Your task to perform on an android device: change the clock style Image 0: 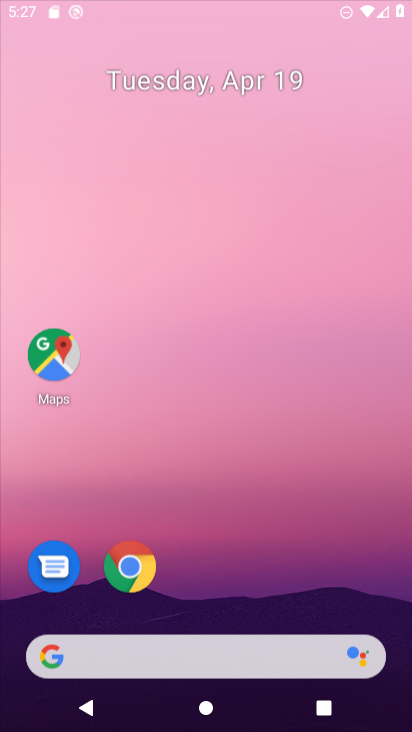
Step 0: drag from (253, 4) to (291, 13)
Your task to perform on an android device: change the clock style Image 1: 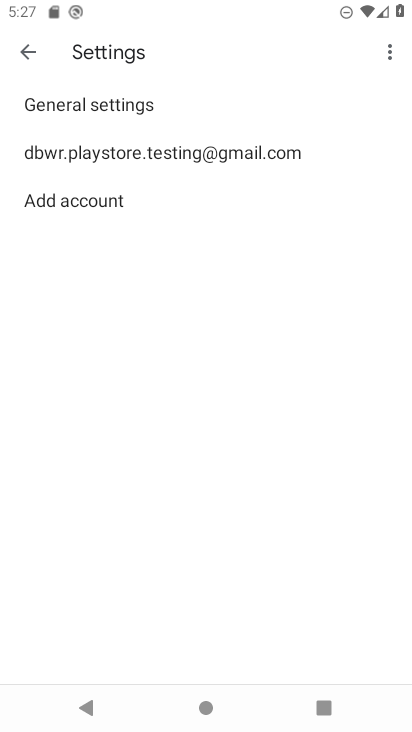
Step 1: press back button
Your task to perform on an android device: change the clock style Image 2: 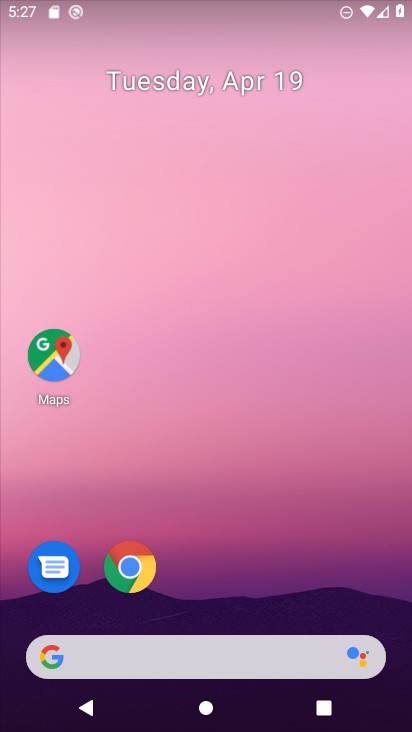
Step 2: drag from (224, 489) to (174, 30)
Your task to perform on an android device: change the clock style Image 3: 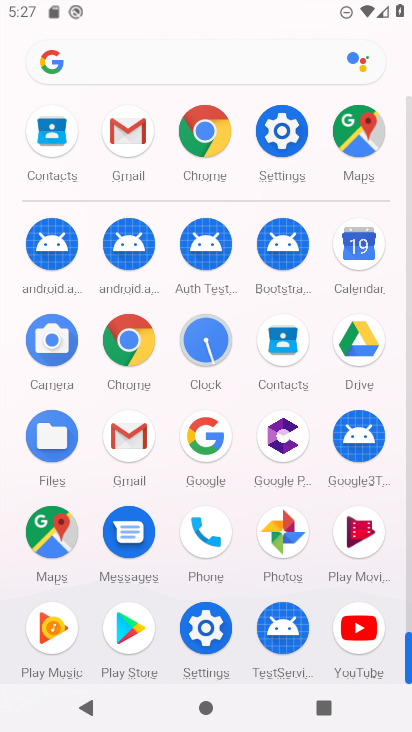
Step 3: click (204, 337)
Your task to perform on an android device: change the clock style Image 4: 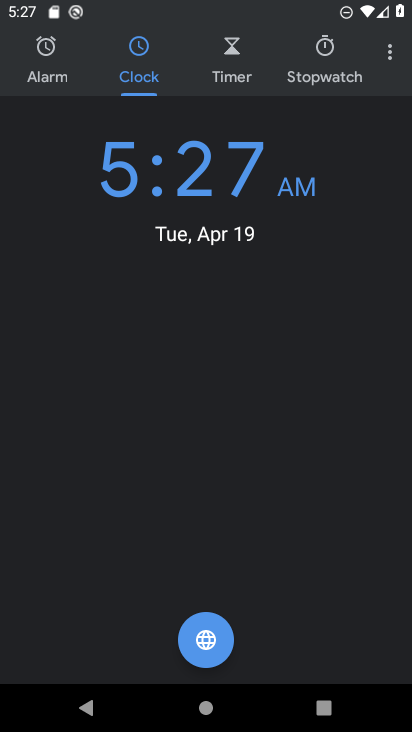
Step 4: click (387, 64)
Your task to perform on an android device: change the clock style Image 5: 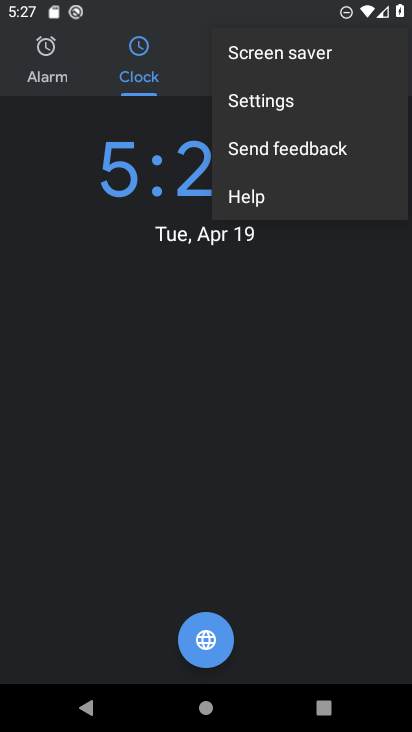
Step 5: click (277, 105)
Your task to perform on an android device: change the clock style Image 6: 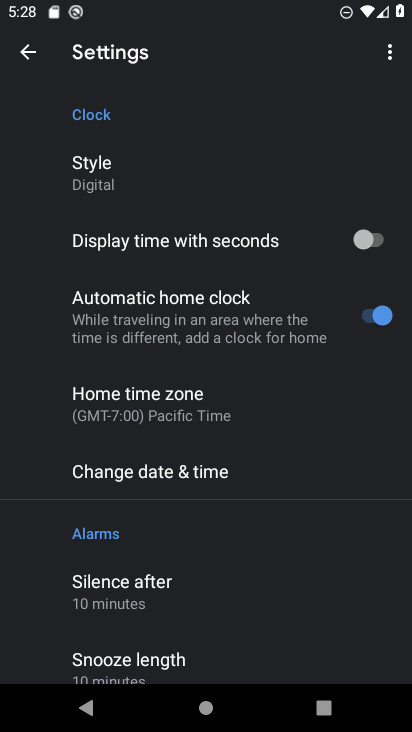
Step 6: click (155, 162)
Your task to perform on an android device: change the clock style Image 7: 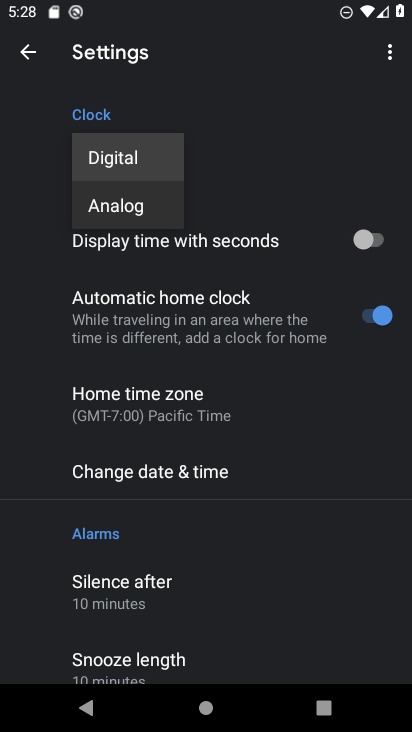
Step 7: click (150, 215)
Your task to perform on an android device: change the clock style Image 8: 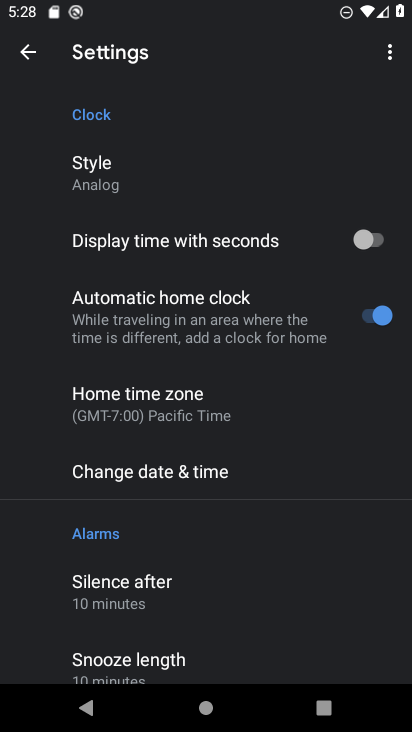
Step 8: task complete